Your task to perform on an android device: Turn off the flashlight Image 0: 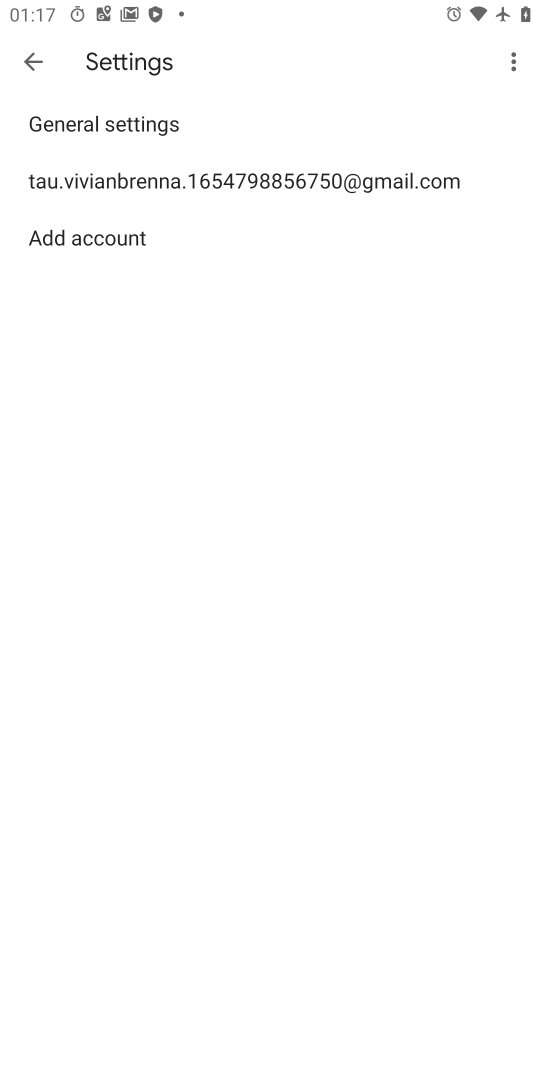
Step 0: press home button
Your task to perform on an android device: Turn off the flashlight Image 1: 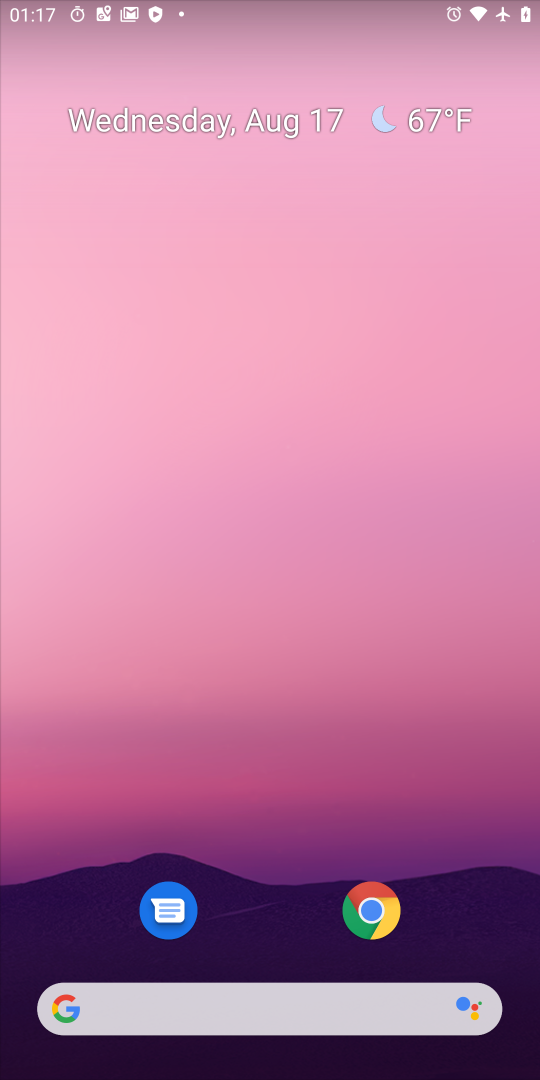
Step 1: drag from (206, 896) to (265, 209)
Your task to perform on an android device: Turn off the flashlight Image 2: 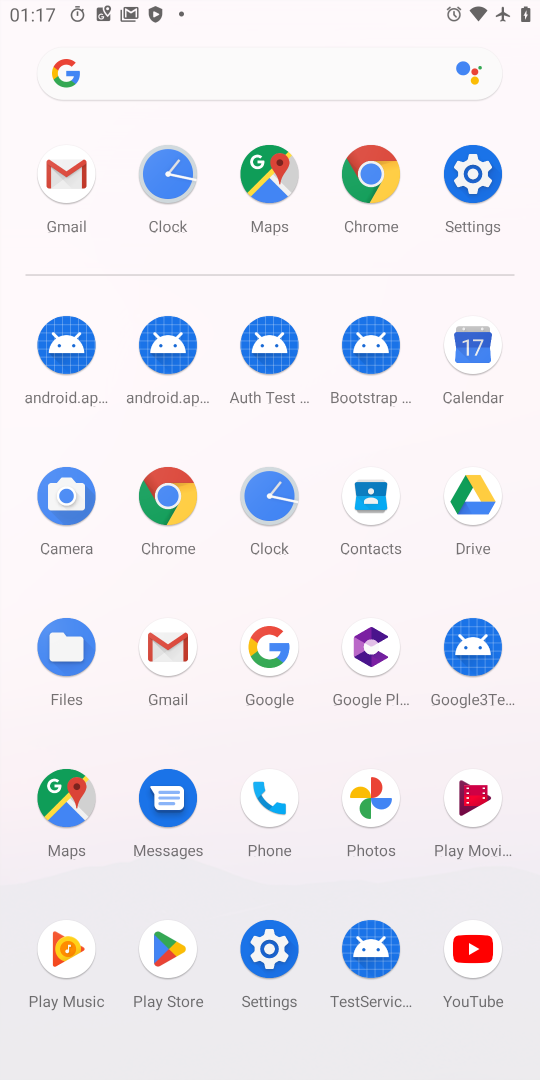
Step 2: click (275, 956)
Your task to perform on an android device: Turn off the flashlight Image 3: 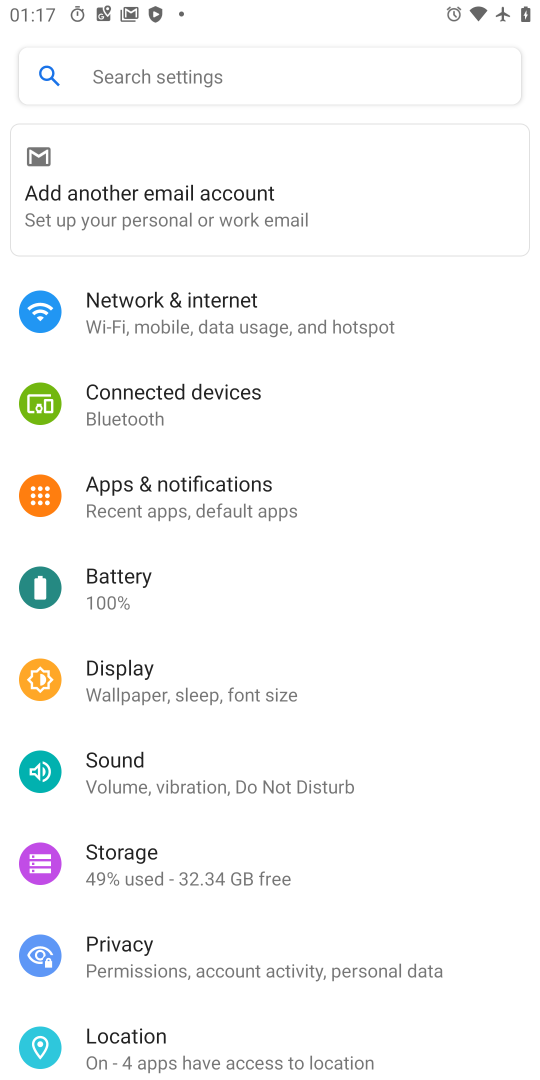
Step 3: click (208, 699)
Your task to perform on an android device: Turn off the flashlight Image 4: 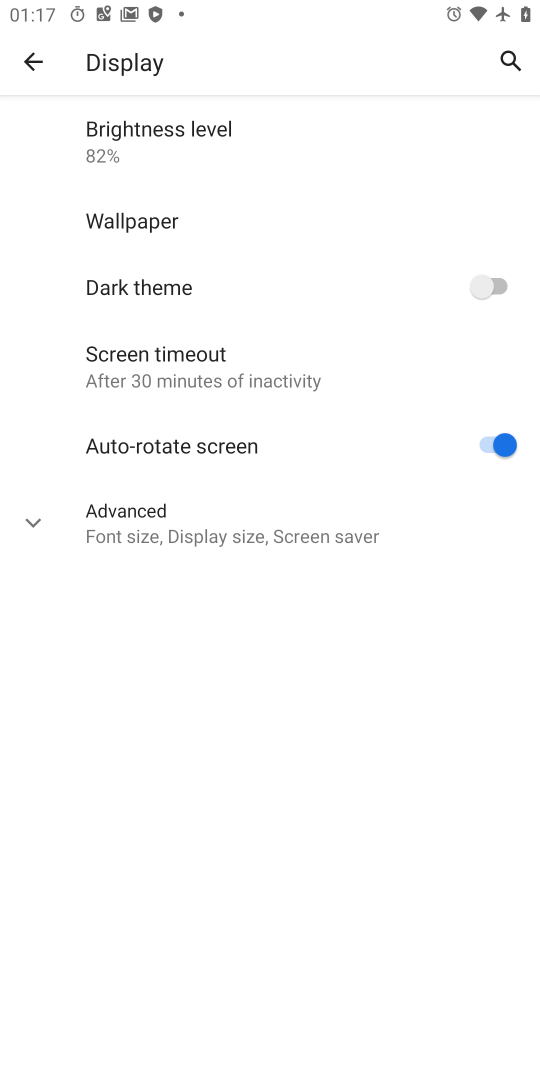
Step 4: task complete